Your task to perform on an android device: stop showing notifications on the lock screen Image 0: 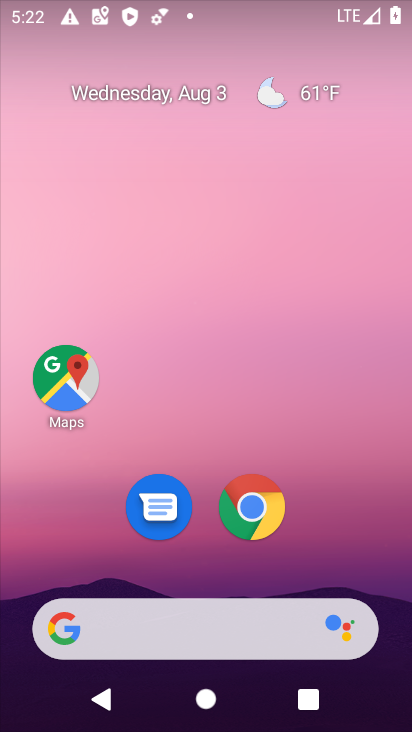
Step 0: drag from (359, 528) to (354, 138)
Your task to perform on an android device: stop showing notifications on the lock screen Image 1: 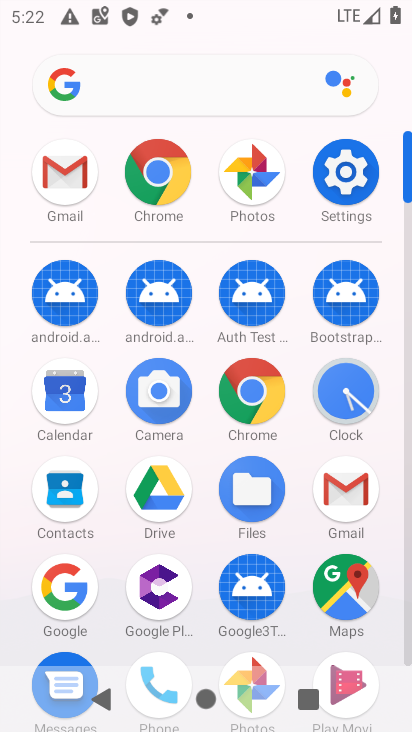
Step 1: drag from (200, 547) to (232, 148)
Your task to perform on an android device: stop showing notifications on the lock screen Image 2: 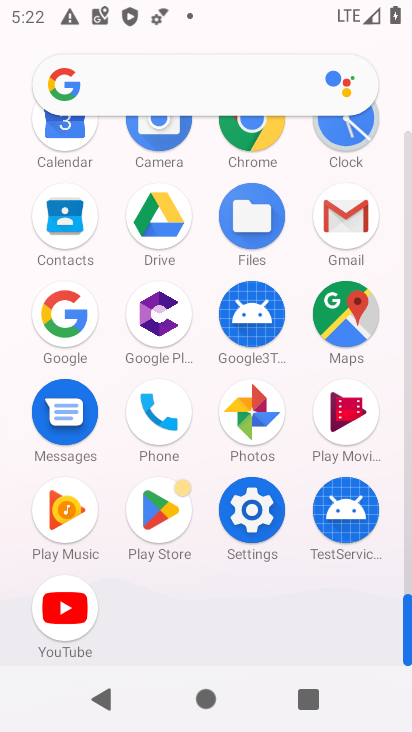
Step 2: click (245, 518)
Your task to perform on an android device: stop showing notifications on the lock screen Image 3: 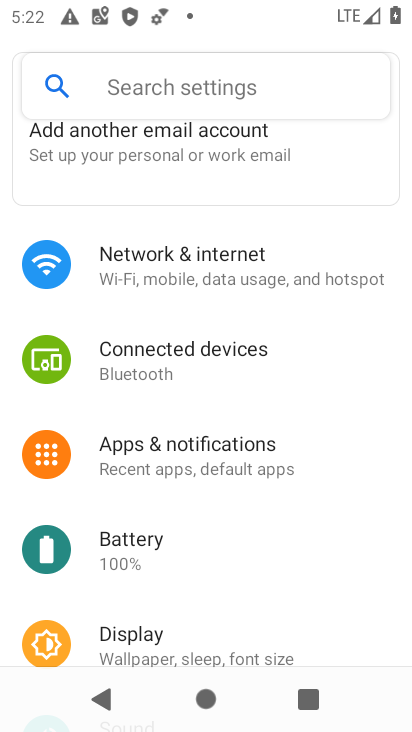
Step 3: drag from (327, 584) to (334, 202)
Your task to perform on an android device: stop showing notifications on the lock screen Image 4: 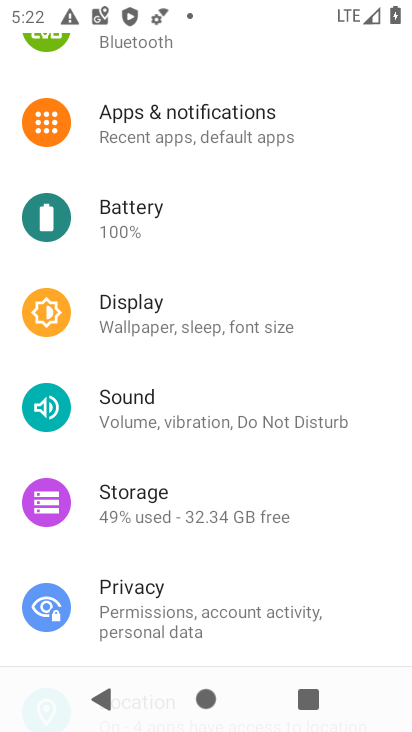
Step 4: click (247, 131)
Your task to perform on an android device: stop showing notifications on the lock screen Image 5: 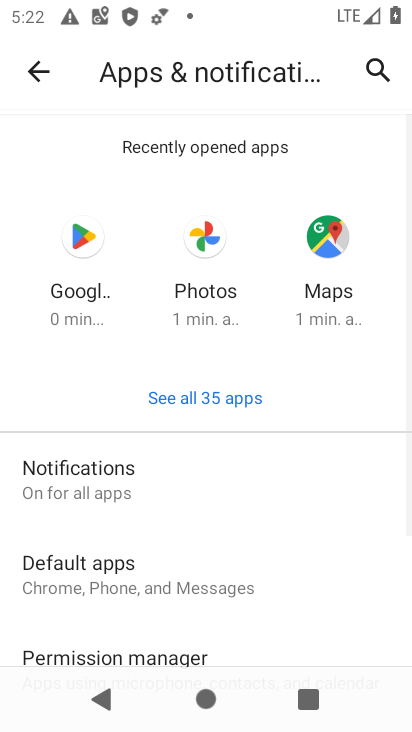
Step 5: click (109, 468)
Your task to perform on an android device: stop showing notifications on the lock screen Image 6: 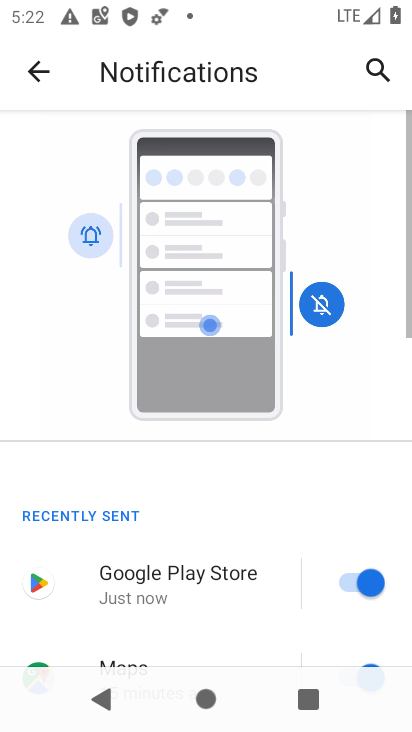
Step 6: drag from (231, 496) to (288, 35)
Your task to perform on an android device: stop showing notifications on the lock screen Image 7: 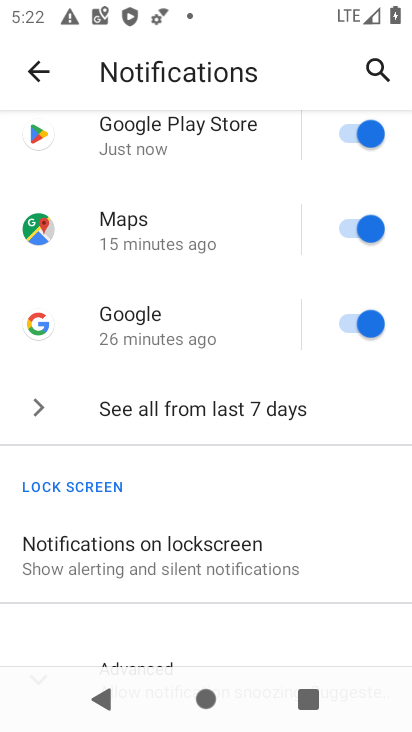
Step 7: click (209, 568)
Your task to perform on an android device: stop showing notifications on the lock screen Image 8: 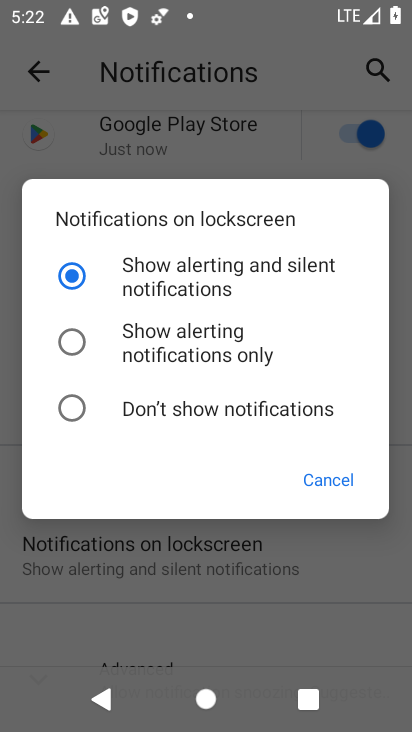
Step 8: click (189, 412)
Your task to perform on an android device: stop showing notifications on the lock screen Image 9: 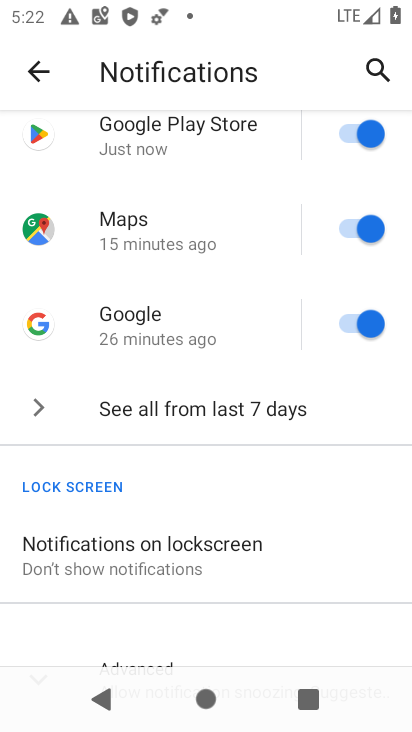
Step 9: task complete